Your task to perform on an android device: Go to accessibility settings Image 0: 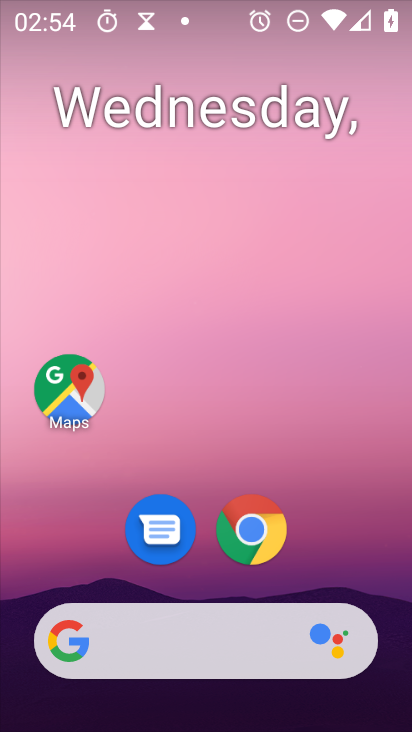
Step 0: drag from (267, 661) to (318, 1)
Your task to perform on an android device: Go to accessibility settings Image 1: 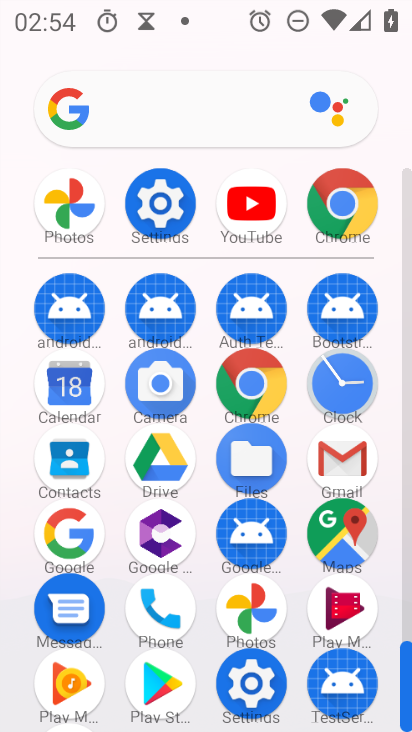
Step 1: click (160, 215)
Your task to perform on an android device: Go to accessibility settings Image 2: 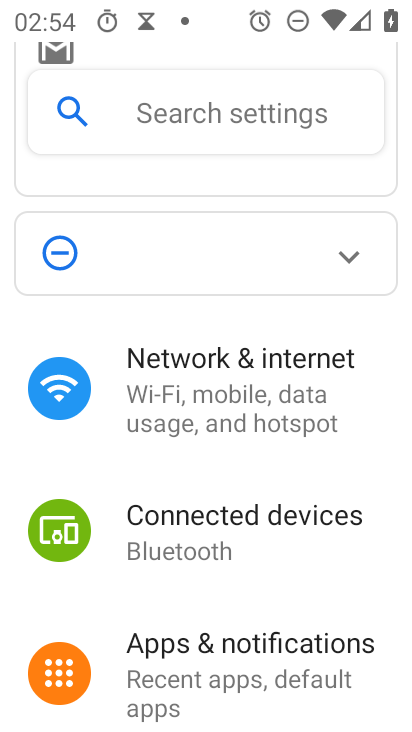
Step 2: drag from (293, 690) to (324, 125)
Your task to perform on an android device: Go to accessibility settings Image 3: 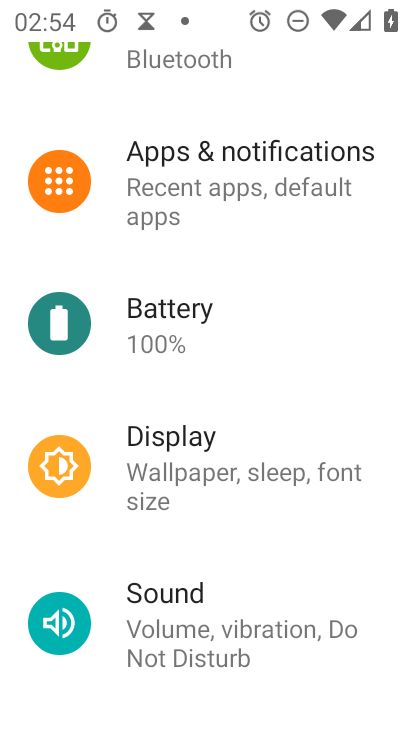
Step 3: drag from (298, 628) to (243, 69)
Your task to perform on an android device: Go to accessibility settings Image 4: 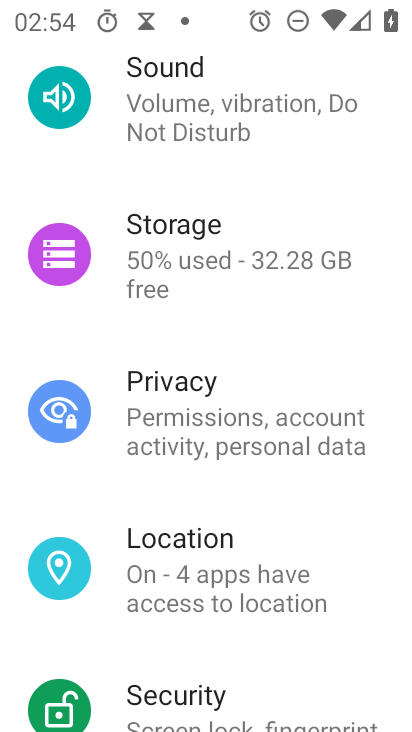
Step 4: drag from (258, 666) to (256, 9)
Your task to perform on an android device: Go to accessibility settings Image 5: 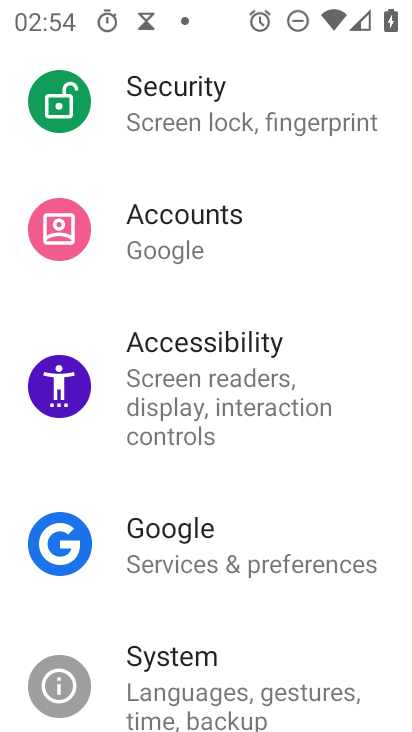
Step 5: click (212, 371)
Your task to perform on an android device: Go to accessibility settings Image 6: 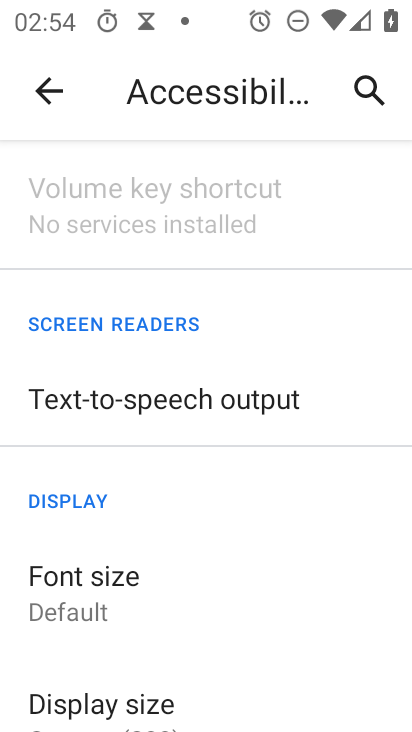
Step 6: task complete